Your task to perform on an android device: Open wifi settings Image 0: 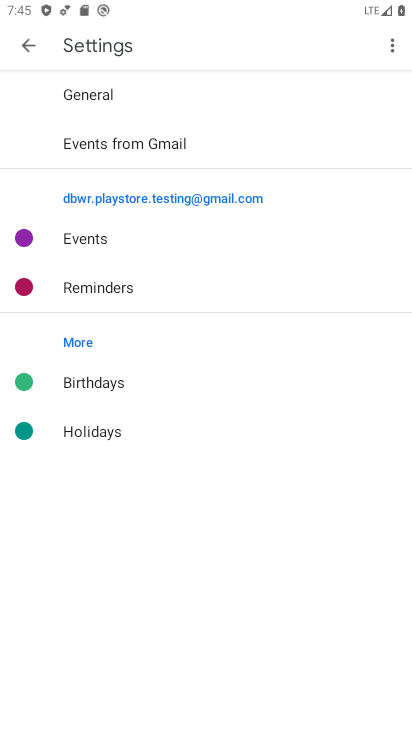
Step 0: press home button
Your task to perform on an android device: Open wifi settings Image 1: 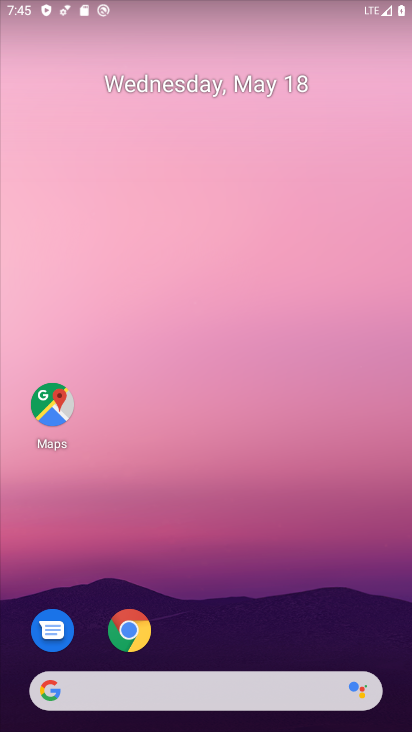
Step 1: drag from (149, 662) to (343, 94)
Your task to perform on an android device: Open wifi settings Image 2: 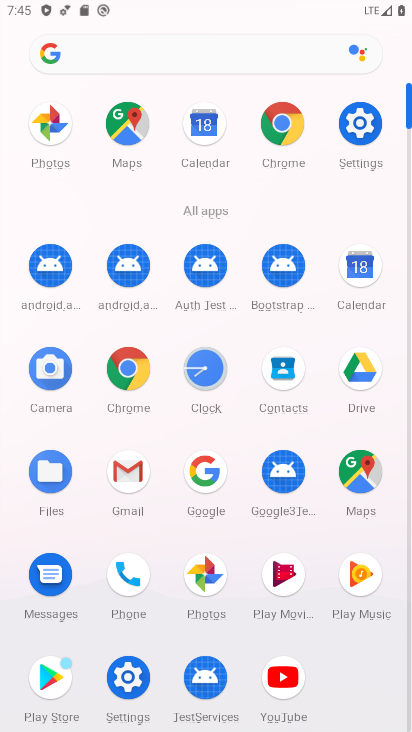
Step 2: click (359, 118)
Your task to perform on an android device: Open wifi settings Image 3: 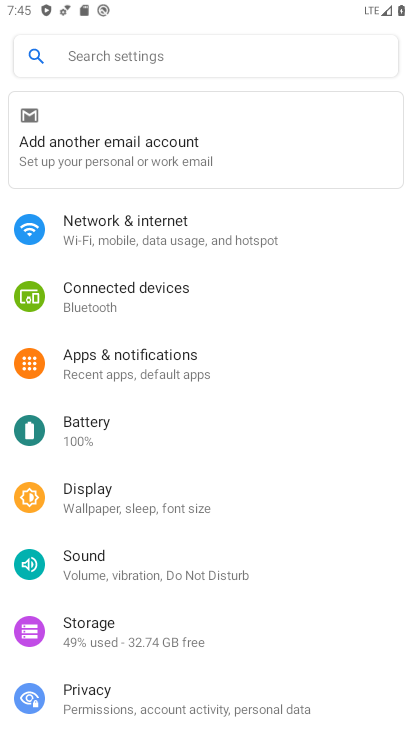
Step 3: click (135, 223)
Your task to perform on an android device: Open wifi settings Image 4: 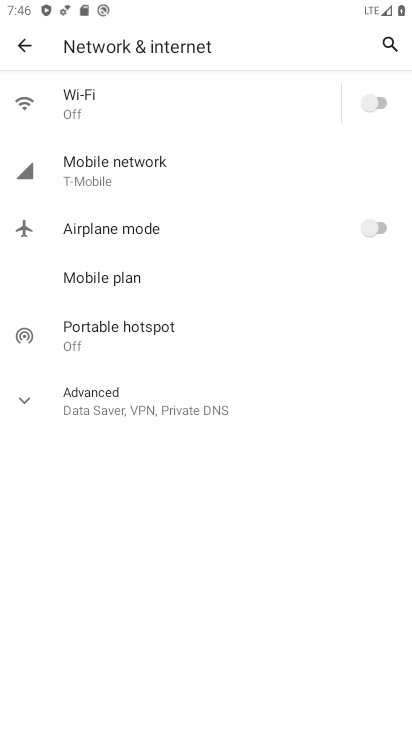
Step 4: click (63, 99)
Your task to perform on an android device: Open wifi settings Image 5: 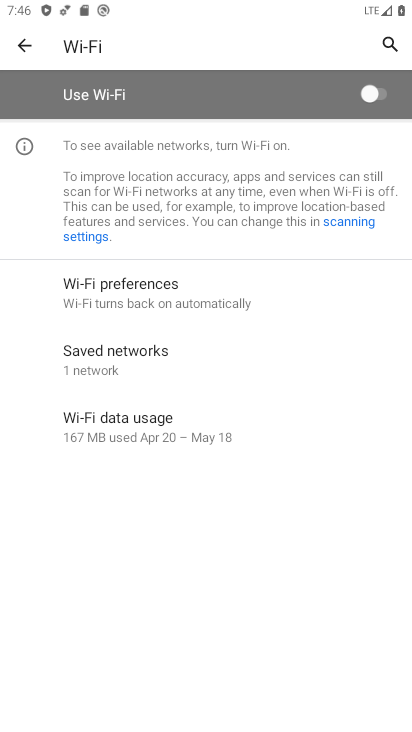
Step 5: task complete